Your task to perform on an android device: turn pop-ups off in chrome Image 0: 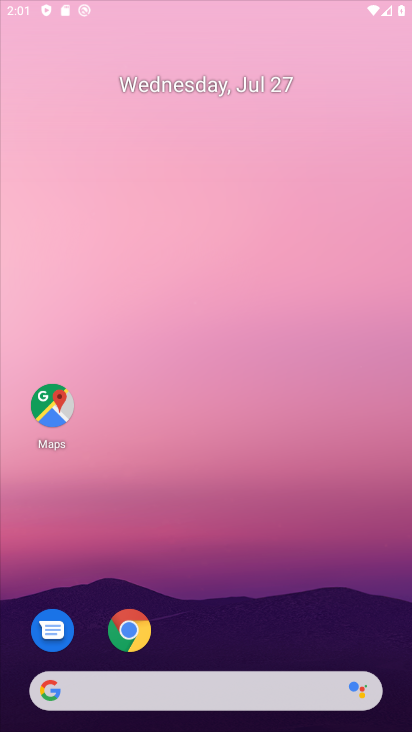
Step 0: press back button
Your task to perform on an android device: turn pop-ups off in chrome Image 1: 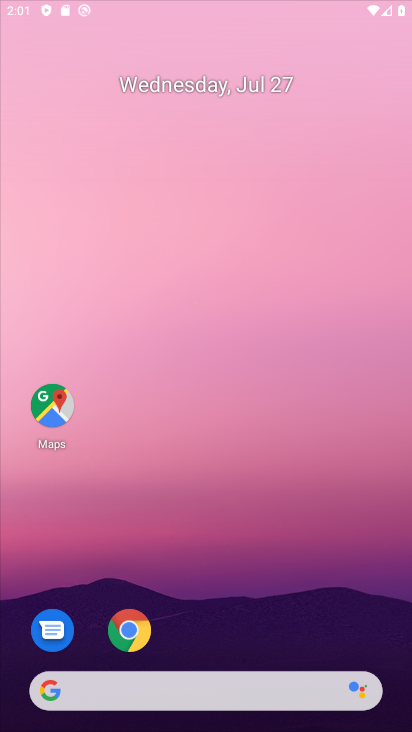
Step 1: drag from (225, 97) to (256, 18)
Your task to perform on an android device: turn pop-ups off in chrome Image 2: 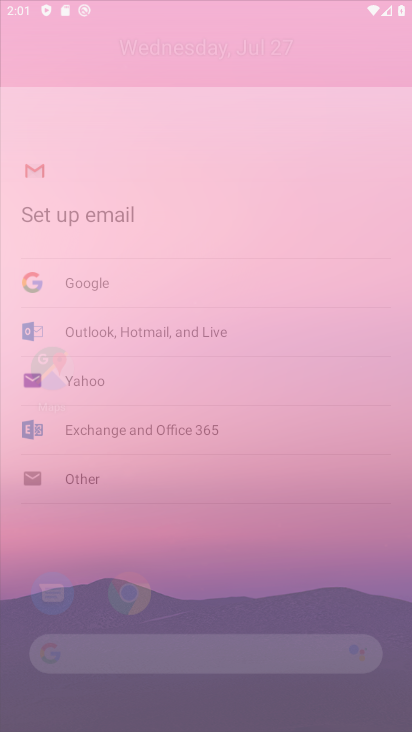
Step 2: drag from (245, 528) to (269, 41)
Your task to perform on an android device: turn pop-ups off in chrome Image 3: 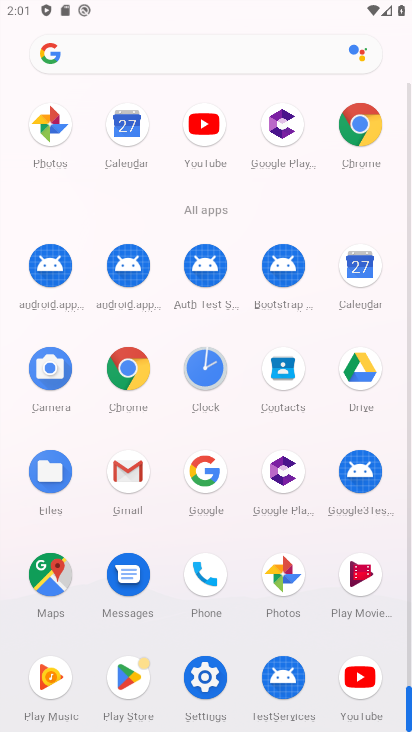
Step 3: press back button
Your task to perform on an android device: turn pop-ups off in chrome Image 4: 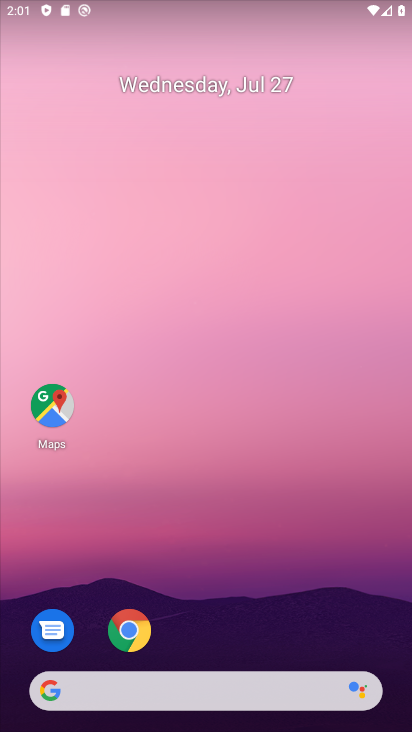
Step 4: drag from (216, 649) to (144, 119)
Your task to perform on an android device: turn pop-ups off in chrome Image 5: 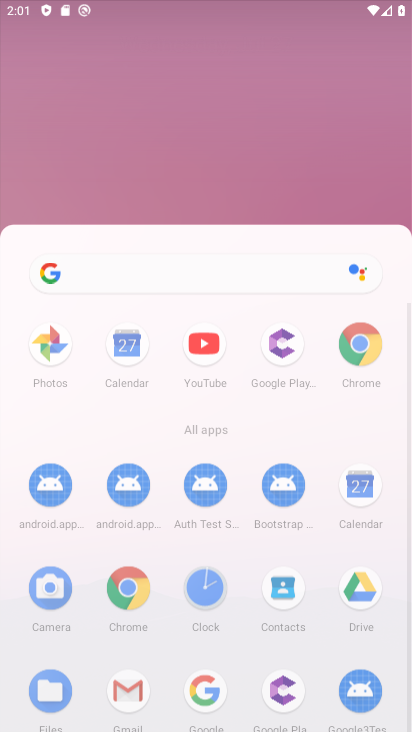
Step 5: drag from (218, 485) to (218, 76)
Your task to perform on an android device: turn pop-ups off in chrome Image 6: 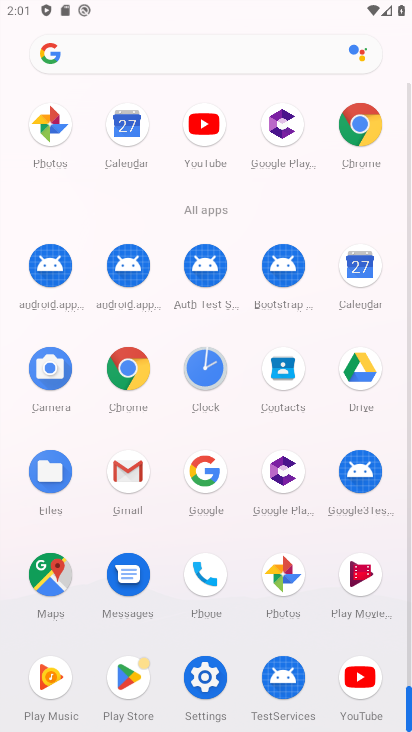
Step 6: click (134, 472)
Your task to perform on an android device: turn pop-ups off in chrome Image 7: 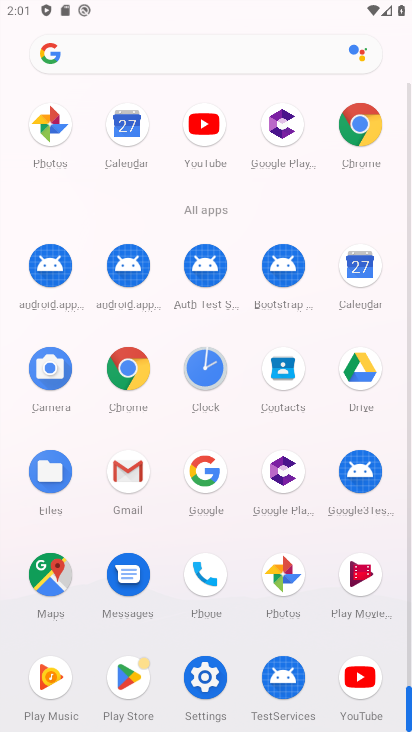
Step 7: click (135, 471)
Your task to perform on an android device: turn pop-ups off in chrome Image 8: 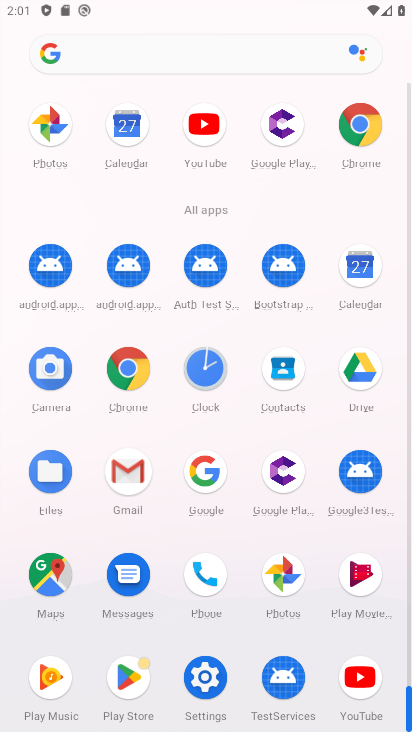
Step 8: click (135, 471)
Your task to perform on an android device: turn pop-ups off in chrome Image 9: 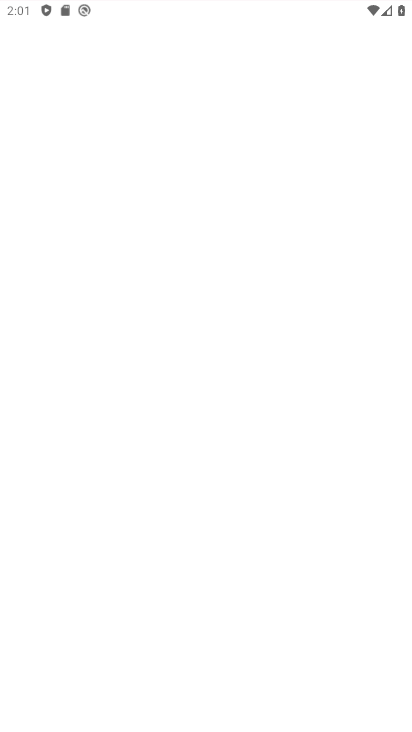
Step 9: click (135, 471)
Your task to perform on an android device: turn pop-ups off in chrome Image 10: 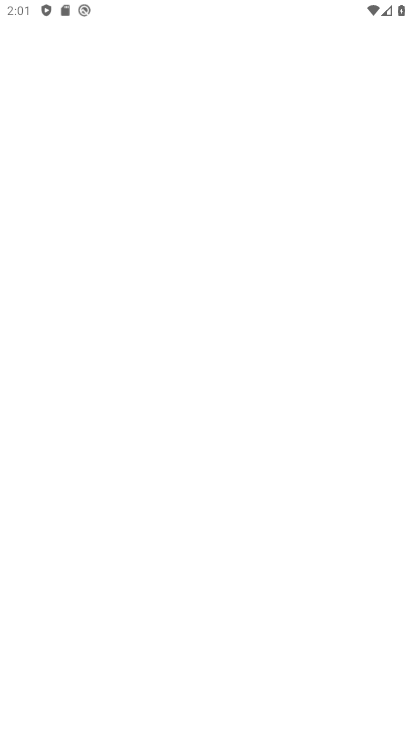
Step 10: click (134, 471)
Your task to perform on an android device: turn pop-ups off in chrome Image 11: 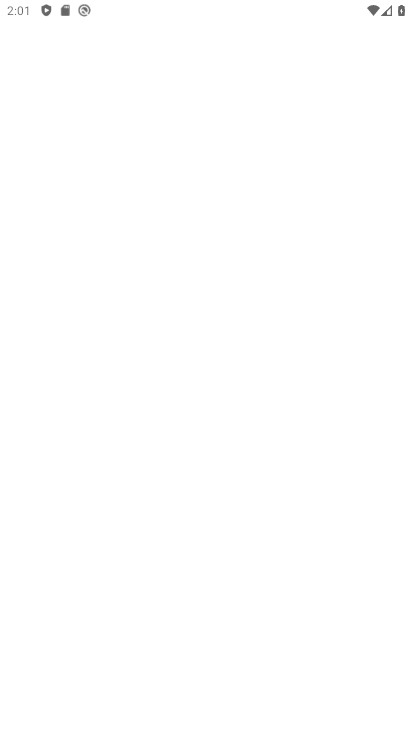
Step 11: click (133, 470)
Your task to perform on an android device: turn pop-ups off in chrome Image 12: 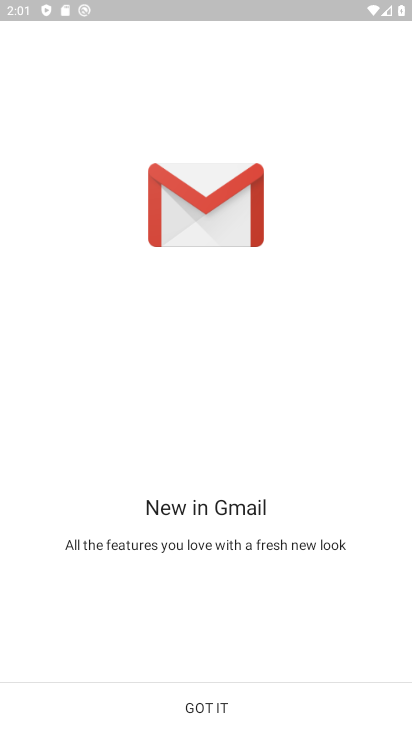
Step 12: click (201, 701)
Your task to perform on an android device: turn pop-ups off in chrome Image 13: 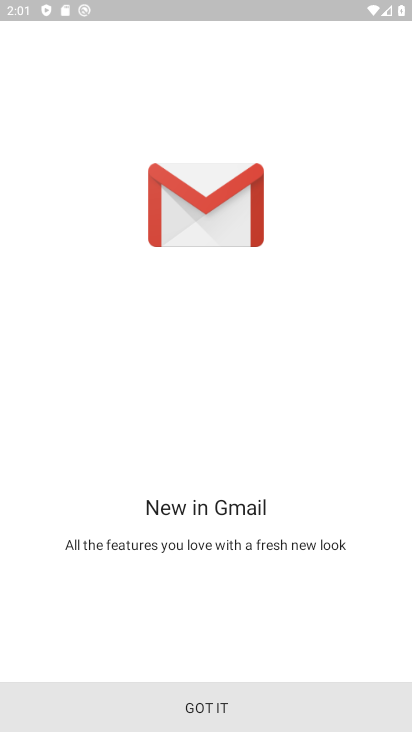
Step 13: click (201, 701)
Your task to perform on an android device: turn pop-ups off in chrome Image 14: 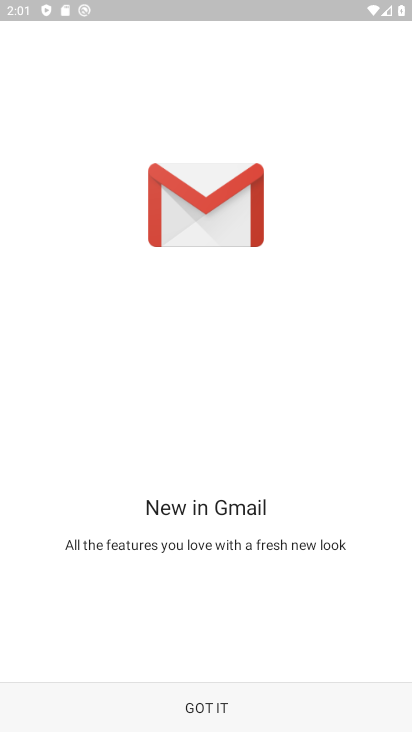
Step 14: click (201, 701)
Your task to perform on an android device: turn pop-ups off in chrome Image 15: 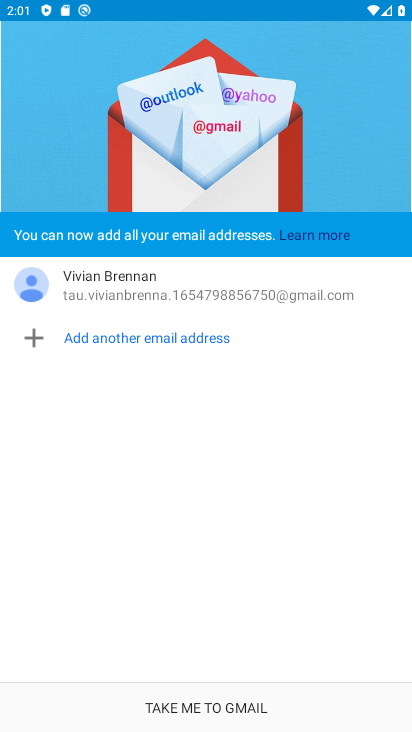
Step 15: click (235, 707)
Your task to perform on an android device: turn pop-ups off in chrome Image 16: 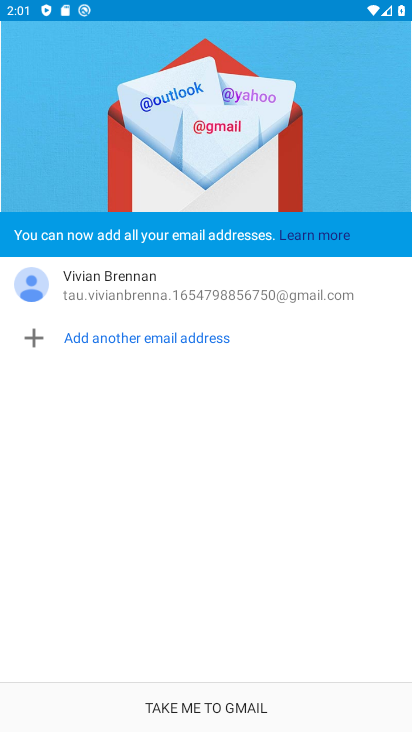
Step 16: click (239, 706)
Your task to perform on an android device: turn pop-ups off in chrome Image 17: 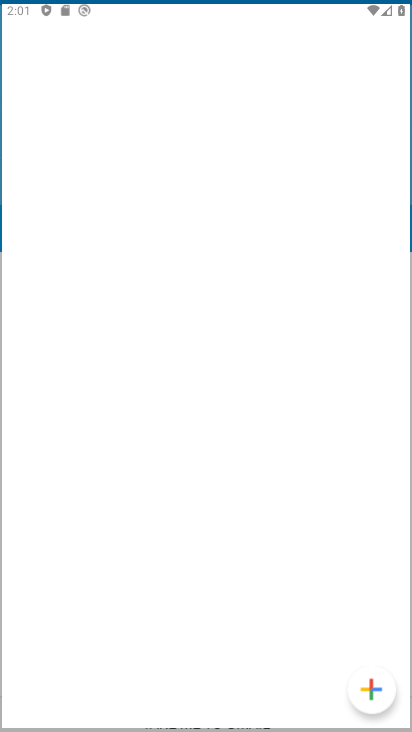
Step 17: click (245, 704)
Your task to perform on an android device: turn pop-ups off in chrome Image 18: 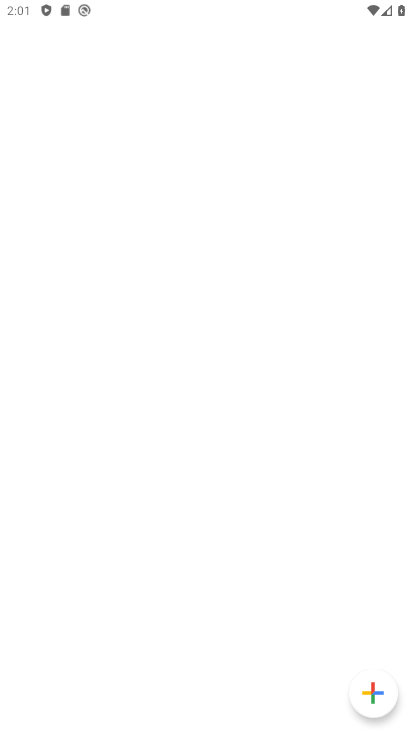
Step 18: click (245, 704)
Your task to perform on an android device: turn pop-ups off in chrome Image 19: 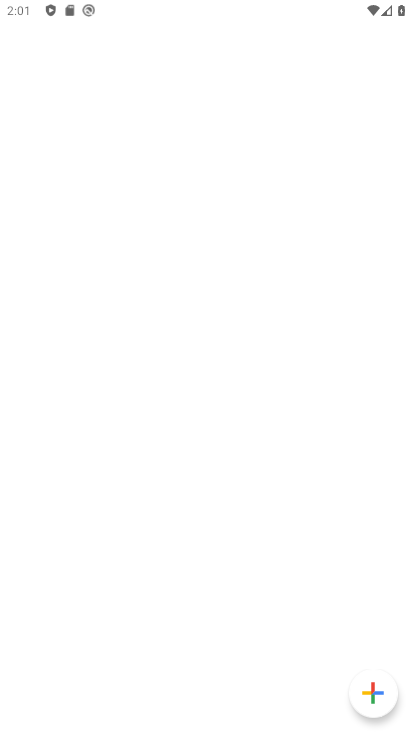
Step 19: click (248, 703)
Your task to perform on an android device: turn pop-ups off in chrome Image 20: 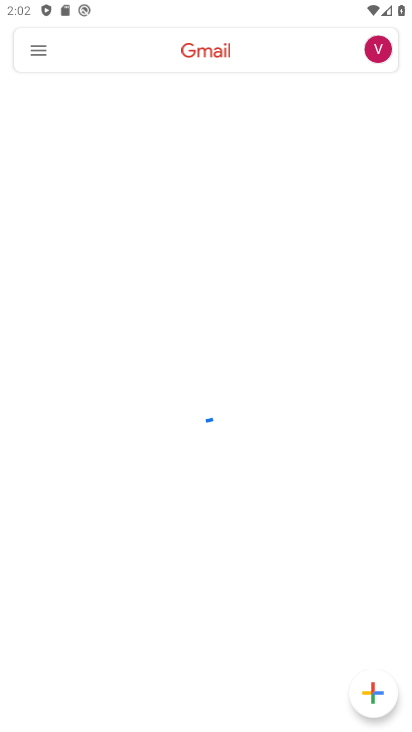
Step 20: click (36, 54)
Your task to perform on an android device: turn pop-ups off in chrome Image 21: 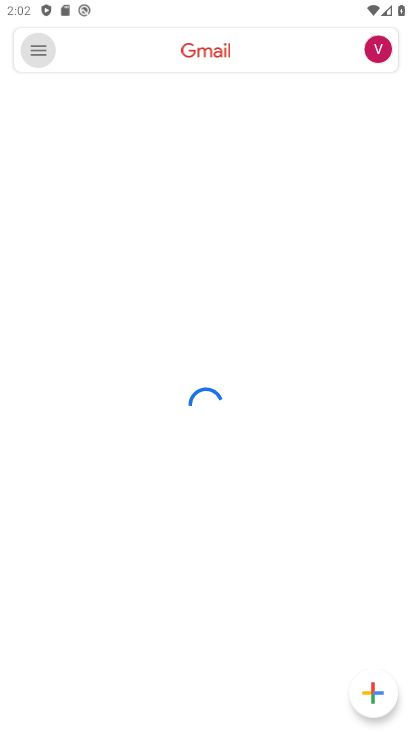
Step 21: click (35, 54)
Your task to perform on an android device: turn pop-ups off in chrome Image 22: 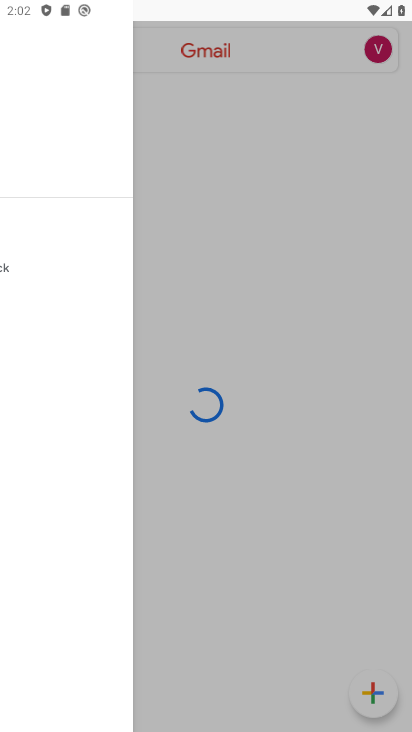
Step 22: click (36, 55)
Your task to perform on an android device: turn pop-ups off in chrome Image 23: 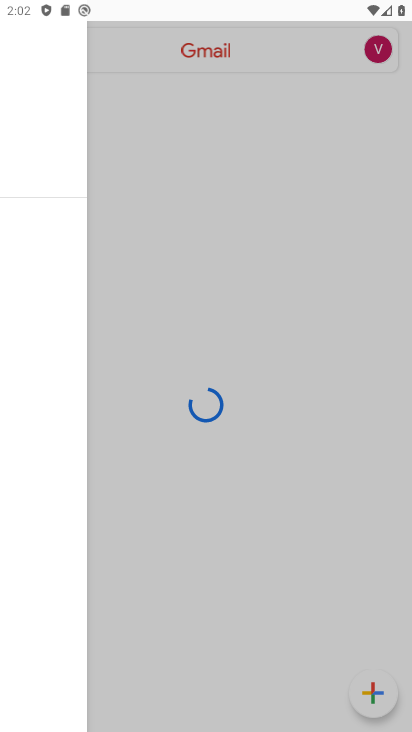
Step 23: click (20, 70)
Your task to perform on an android device: turn pop-ups off in chrome Image 24: 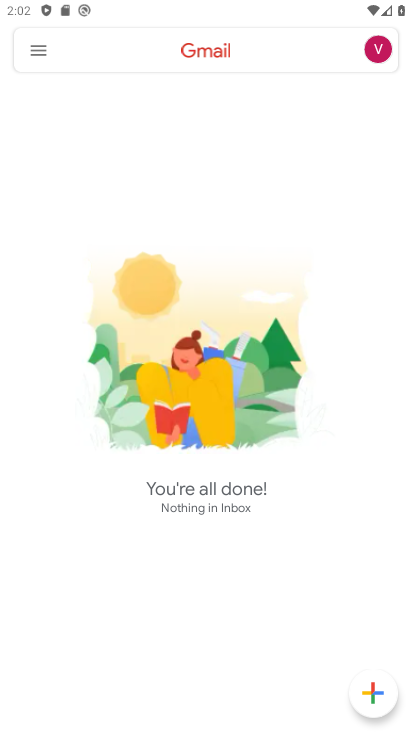
Step 24: click (45, 49)
Your task to perform on an android device: turn pop-ups off in chrome Image 25: 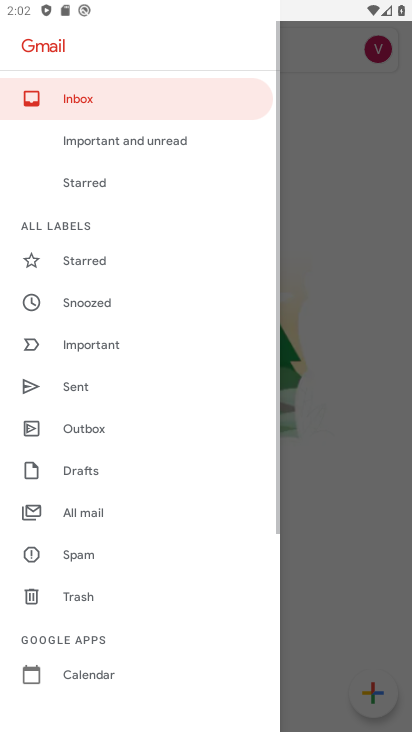
Step 25: drag from (96, 636) to (62, 198)
Your task to perform on an android device: turn pop-ups off in chrome Image 26: 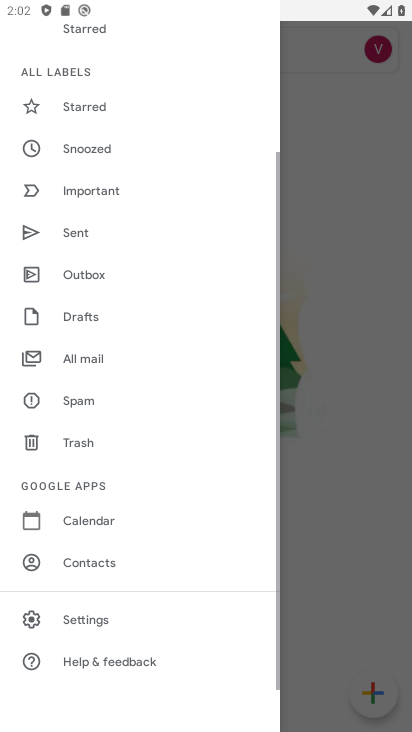
Step 26: drag from (112, 592) to (108, 301)
Your task to perform on an android device: turn pop-ups off in chrome Image 27: 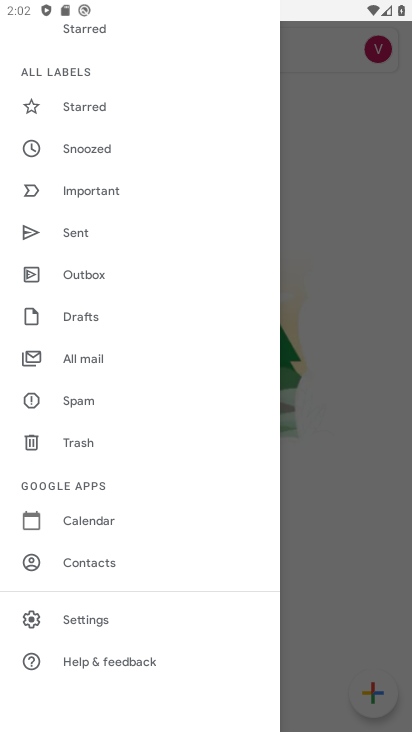
Step 27: click (340, 462)
Your task to perform on an android device: turn pop-ups off in chrome Image 28: 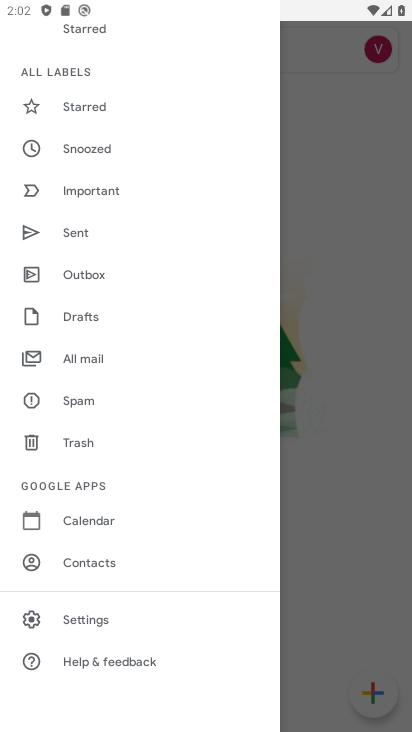
Step 28: press back button
Your task to perform on an android device: turn pop-ups off in chrome Image 29: 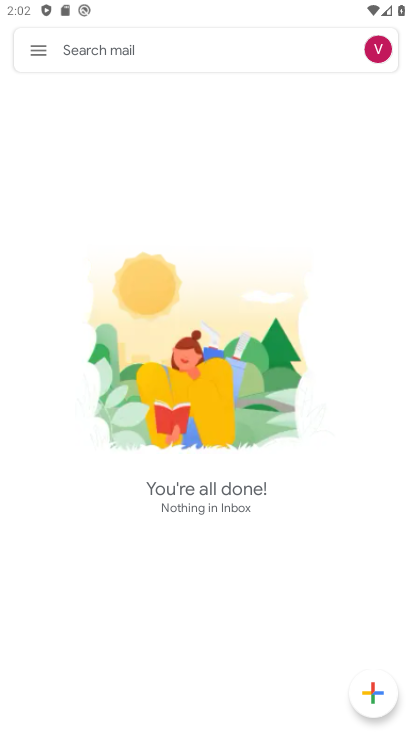
Step 29: press home button
Your task to perform on an android device: turn pop-ups off in chrome Image 30: 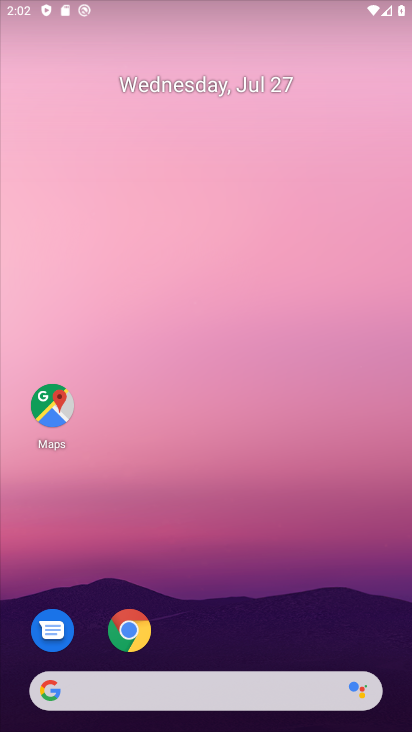
Step 30: drag from (264, 640) to (126, 365)
Your task to perform on an android device: turn pop-ups off in chrome Image 31: 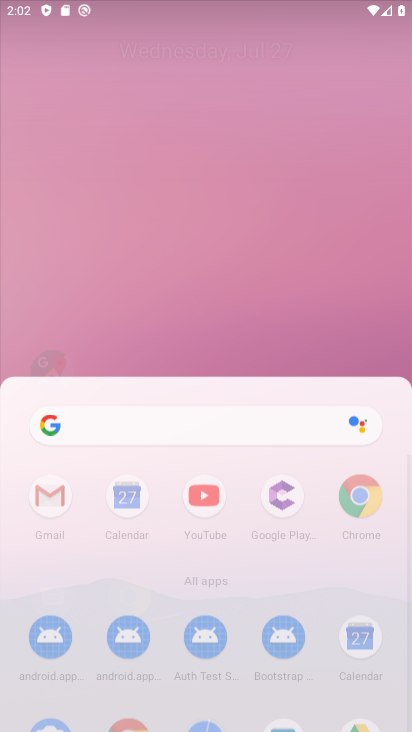
Step 31: drag from (160, 373) to (131, 33)
Your task to perform on an android device: turn pop-ups off in chrome Image 32: 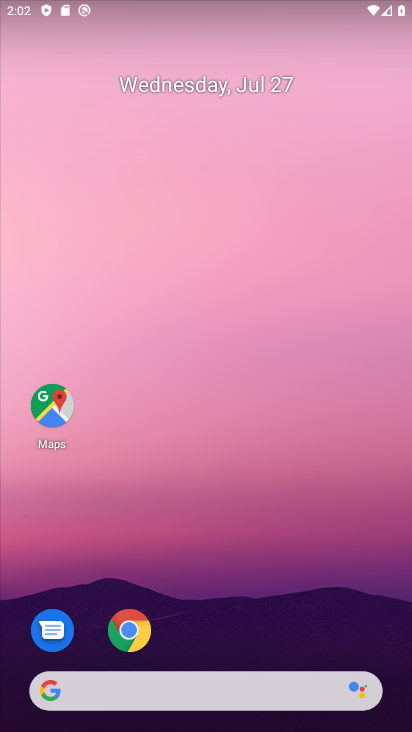
Step 32: drag from (207, 83) to (177, 15)
Your task to perform on an android device: turn pop-ups off in chrome Image 33: 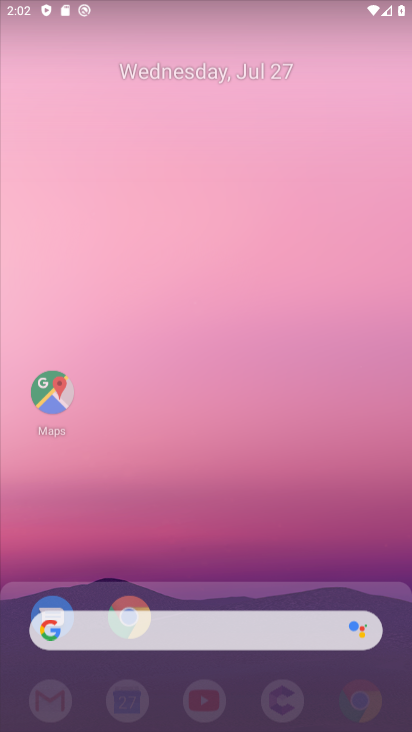
Step 33: drag from (271, 376) to (271, 103)
Your task to perform on an android device: turn pop-ups off in chrome Image 34: 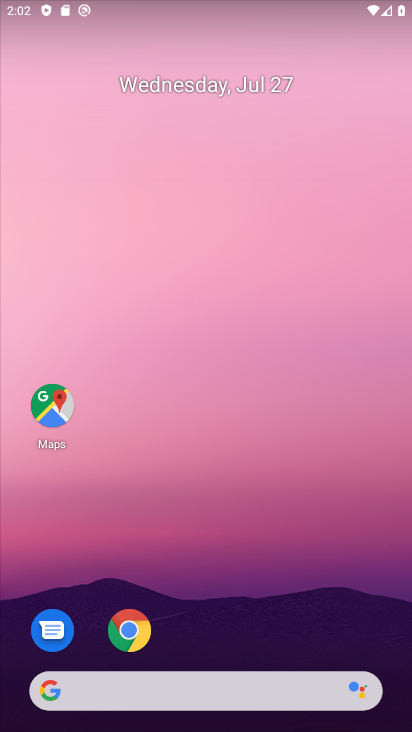
Step 34: drag from (100, 264) to (72, 40)
Your task to perform on an android device: turn pop-ups off in chrome Image 35: 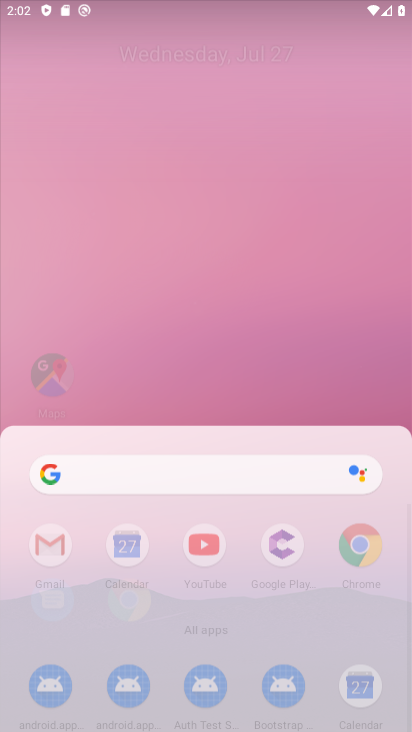
Step 35: drag from (226, 464) to (202, 57)
Your task to perform on an android device: turn pop-ups off in chrome Image 36: 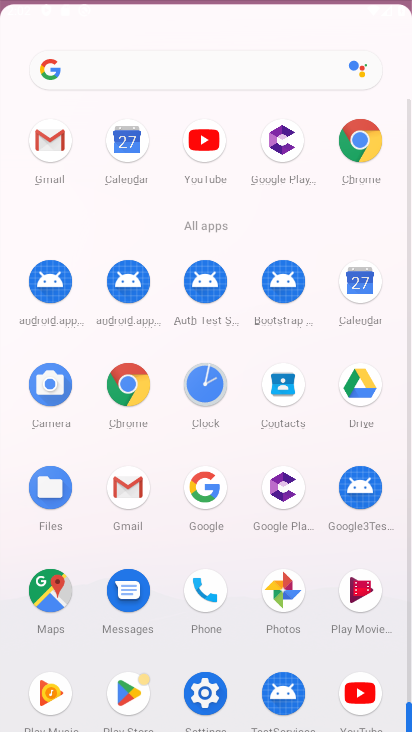
Step 36: drag from (249, 498) to (200, 102)
Your task to perform on an android device: turn pop-ups off in chrome Image 37: 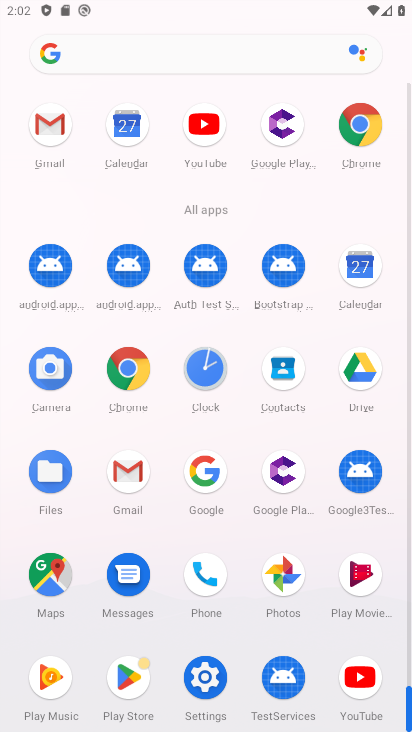
Step 37: drag from (229, 528) to (170, 65)
Your task to perform on an android device: turn pop-ups off in chrome Image 38: 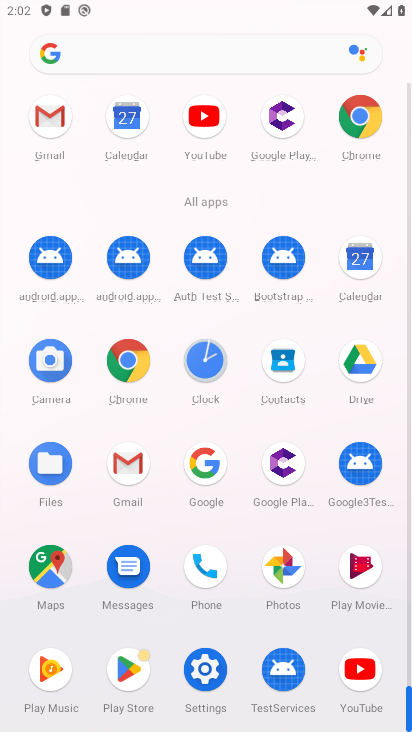
Step 38: click (131, 371)
Your task to perform on an android device: turn pop-ups off in chrome Image 39: 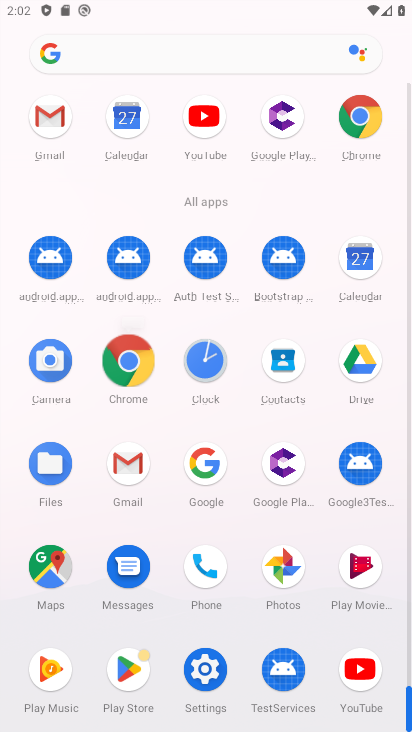
Step 39: click (131, 369)
Your task to perform on an android device: turn pop-ups off in chrome Image 40: 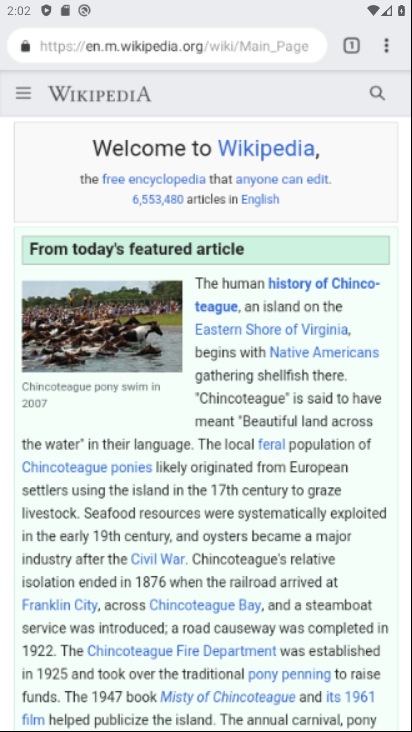
Step 40: click (133, 369)
Your task to perform on an android device: turn pop-ups off in chrome Image 41: 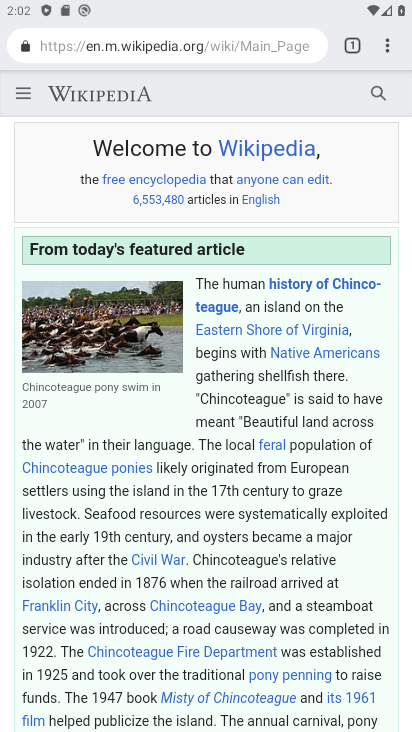
Step 41: drag from (379, 40) to (201, 500)
Your task to perform on an android device: turn pop-ups off in chrome Image 42: 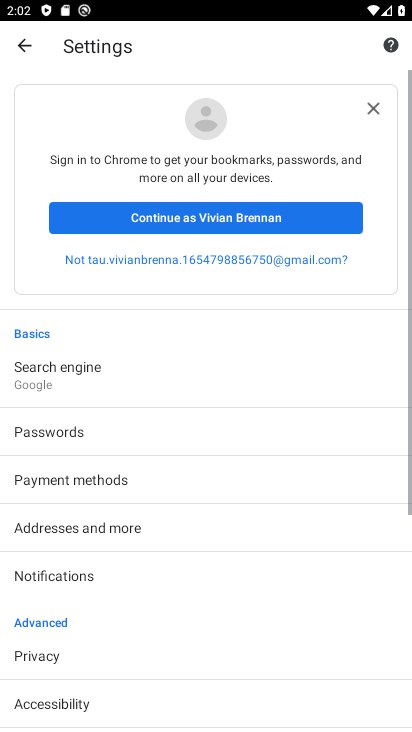
Step 42: drag from (152, 513) to (103, 132)
Your task to perform on an android device: turn pop-ups off in chrome Image 43: 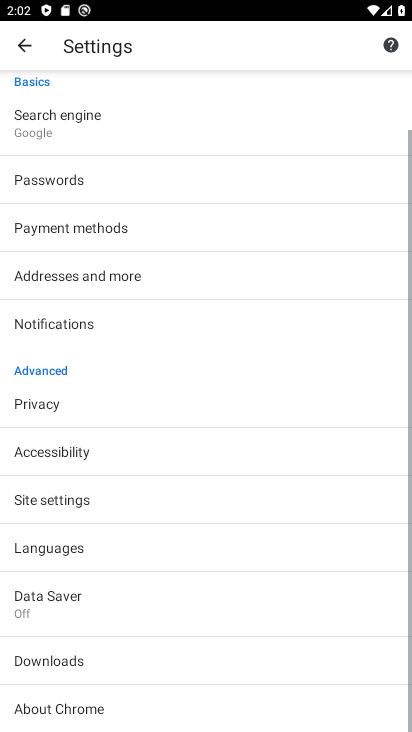
Step 43: drag from (101, 507) to (103, 224)
Your task to perform on an android device: turn pop-ups off in chrome Image 44: 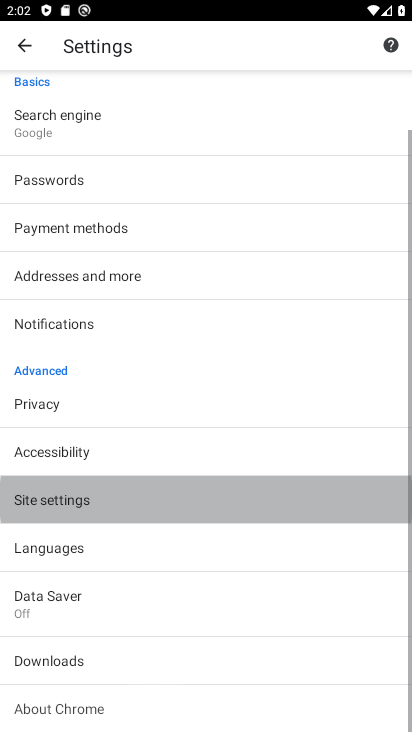
Step 44: drag from (137, 540) to (77, 204)
Your task to perform on an android device: turn pop-ups off in chrome Image 45: 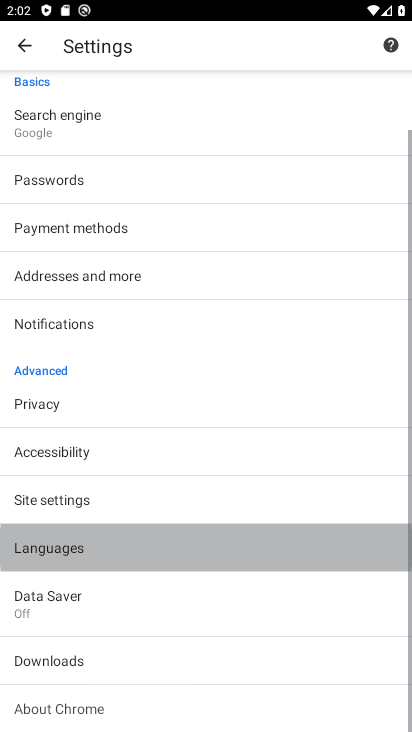
Step 45: drag from (110, 510) to (86, 268)
Your task to perform on an android device: turn pop-ups off in chrome Image 46: 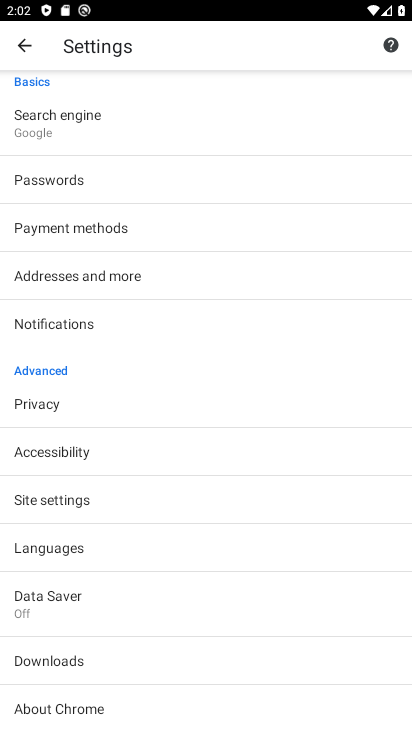
Step 46: drag from (57, 496) to (36, 351)
Your task to perform on an android device: turn pop-ups off in chrome Image 47: 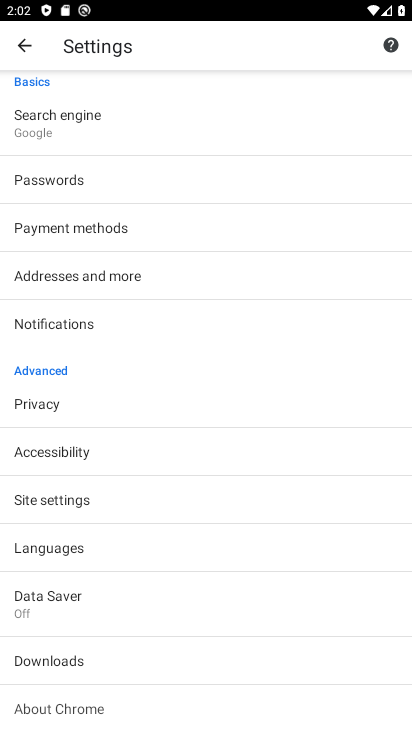
Step 47: drag from (84, 585) to (75, 354)
Your task to perform on an android device: turn pop-ups off in chrome Image 48: 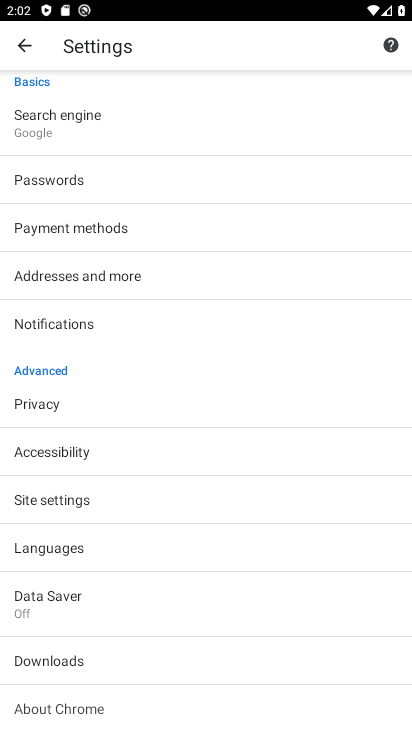
Step 48: drag from (90, 531) to (93, 375)
Your task to perform on an android device: turn pop-ups off in chrome Image 49: 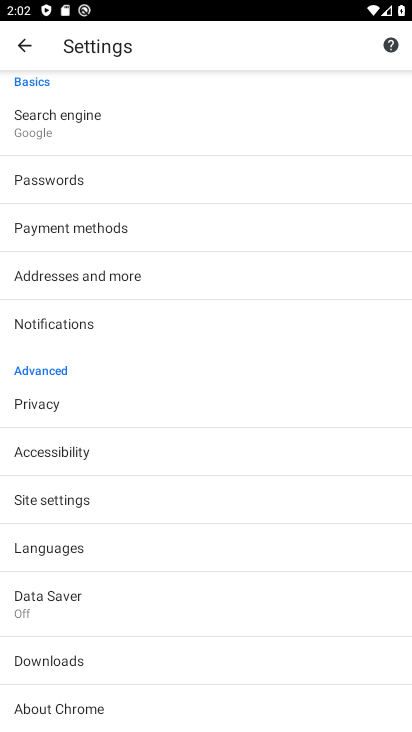
Step 49: drag from (73, 682) to (97, 424)
Your task to perform on an android device: turn pop-ups off in chrome Image 50: 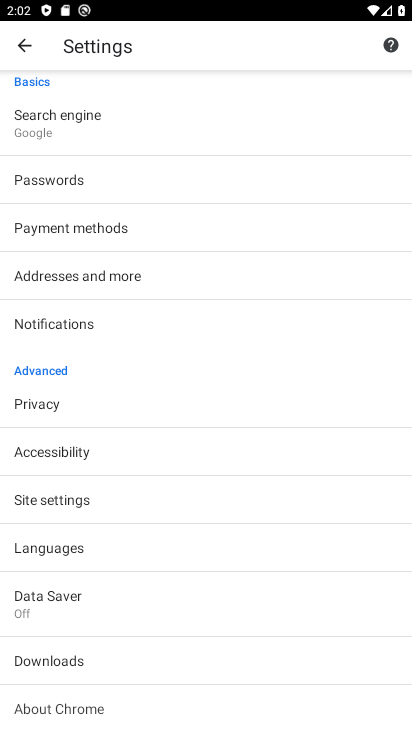
Step 50: drag from (89, 474) to (76, 371)
Your task to perform on an android device: turn pop-ups off in chrome Image 51: 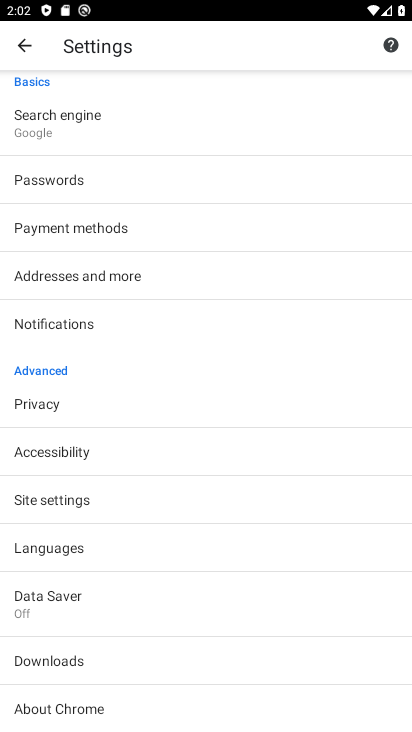
Step 51: drag from (87, 652) to (87, 311)
Your task to perform on an android device: turn pop-ups off in chrome Image 52: 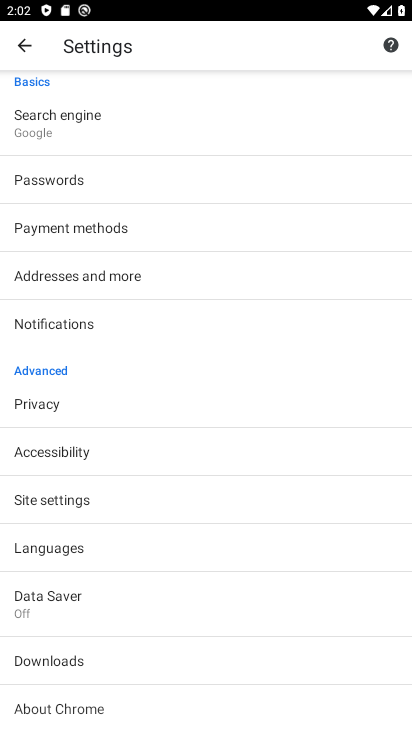
Step 52: drag from (127, 631) to (127, 389)
Your task to perform on an android device: turn pop-ups off in chrome Image 53: 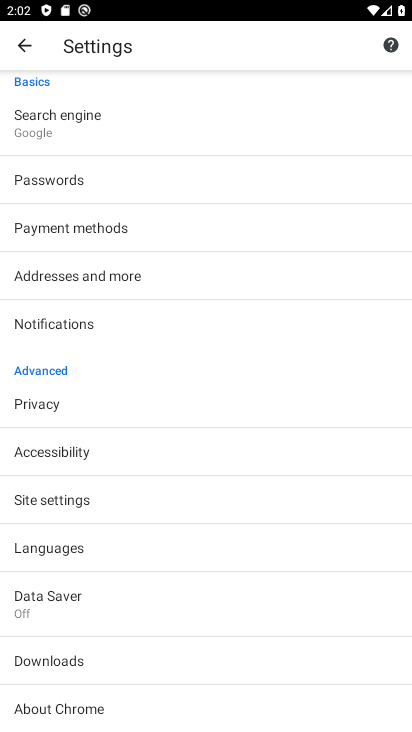
Step 53: click (44, 507)
Your task to perform on an android device: turn pop-ups off in chrome Image 54: 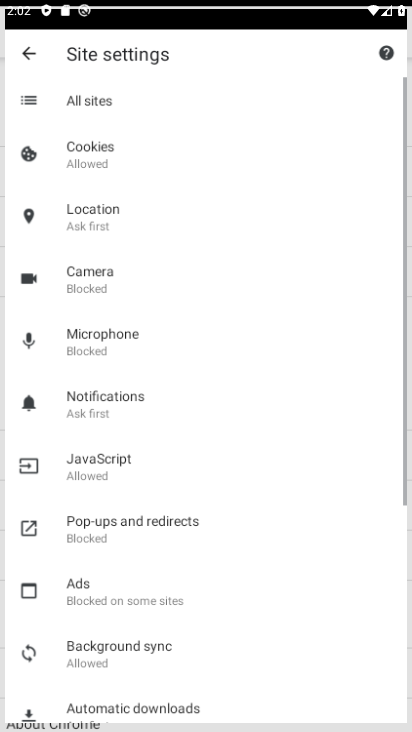
Step 54: click (37, 503)
Your task to perform on an android device: turn pop-ups off in chrome Image 55: 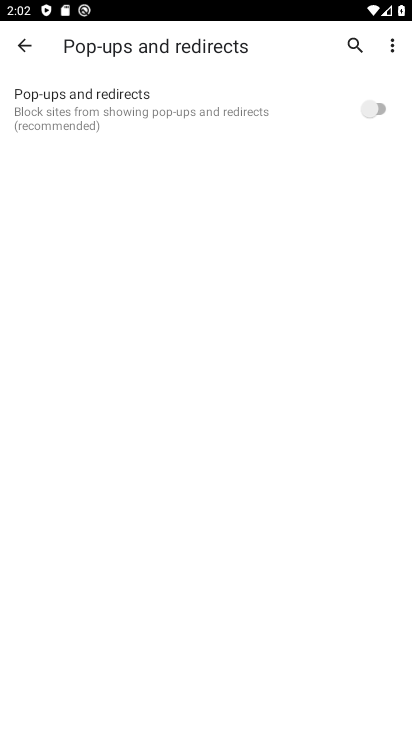
Step 55: task complete